Your task to perform on an android device: change your default location settings in chrome Image 0: 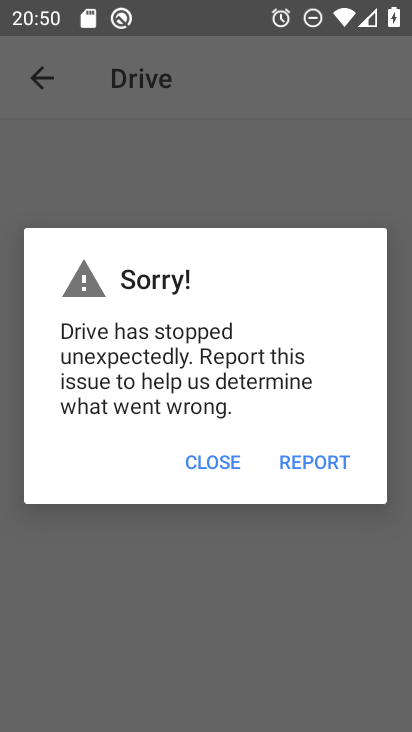
Step 0: press home button
Your task to perform on an android device: change your default location settings in chrome Image 1: 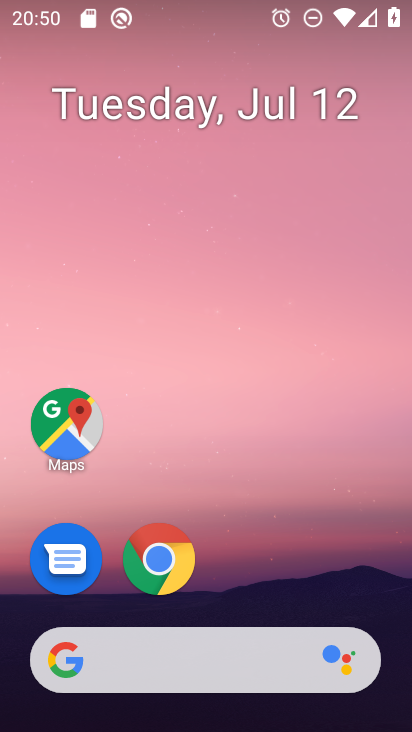
Step 1: drag from (352, 566) to (355, 154)
Your task to perform on an android device: change your default location settings in chrome Image 2: 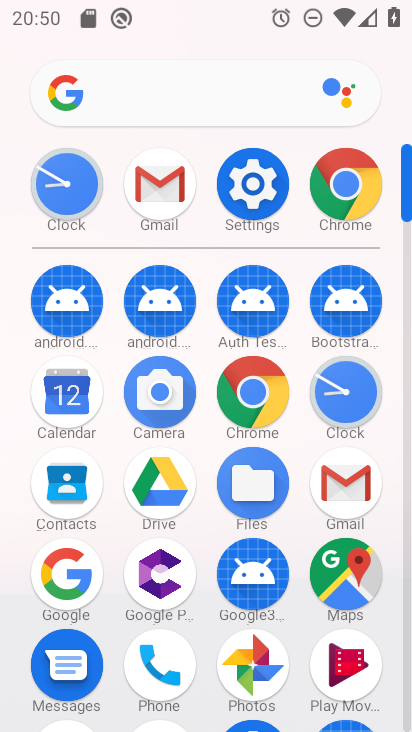
Step 2: click (254, 412)
Your task to perform on an android device: change your default location settings in chrome Image 3: 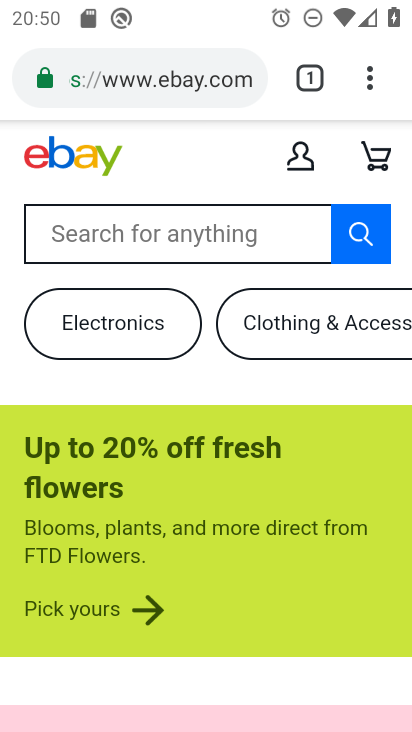
Step 3: click (369, 88)
Your task to perform on an android device: change your default location settings in chrome Image 4: 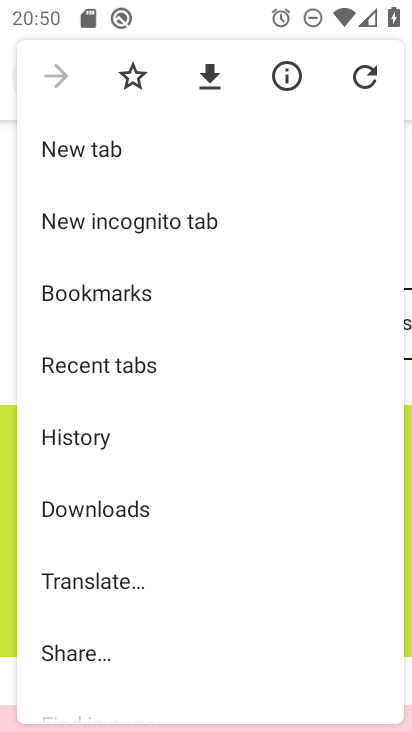
Step 4: drag from (323, 503) to (326, 332)
Your task to perform on an android device: change your default location settings in chrome Image 5: 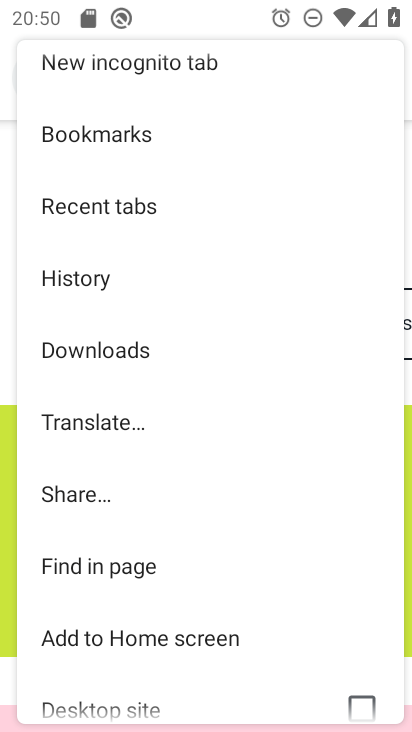
Step 5: drag from (317, 492) to (310, 334)
Your task to perform on an android device: change your default location settings in chrome Image 6: 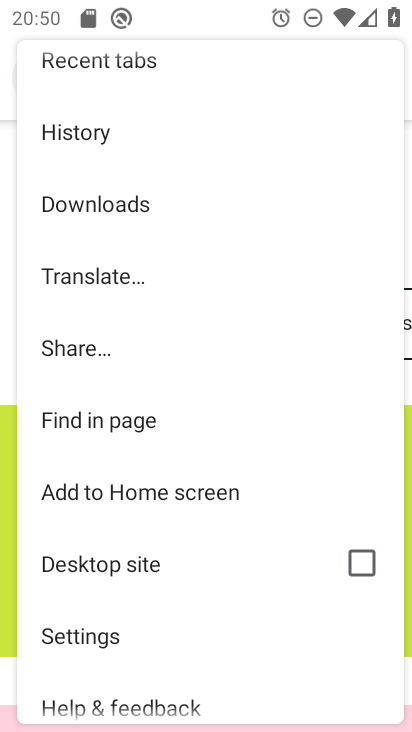
Step 6: drag from (288, 530) to (283, 397)
Your task to perform on an android device: change your default location settings in chrome Image 7: 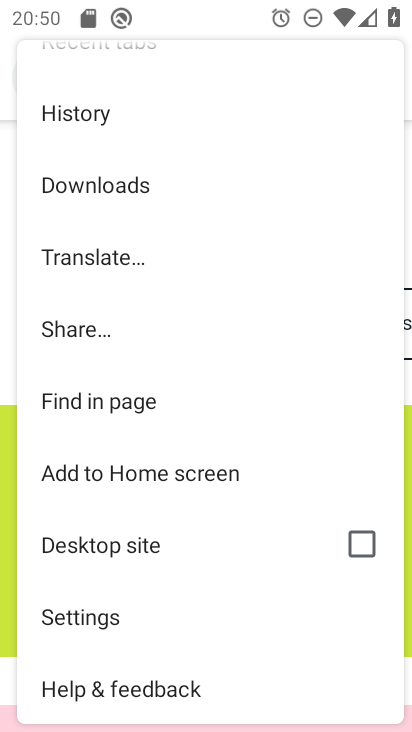
Step 7: click (122, 618)
Your task to perform on an android device: change your default location settings in chrome Image 8: 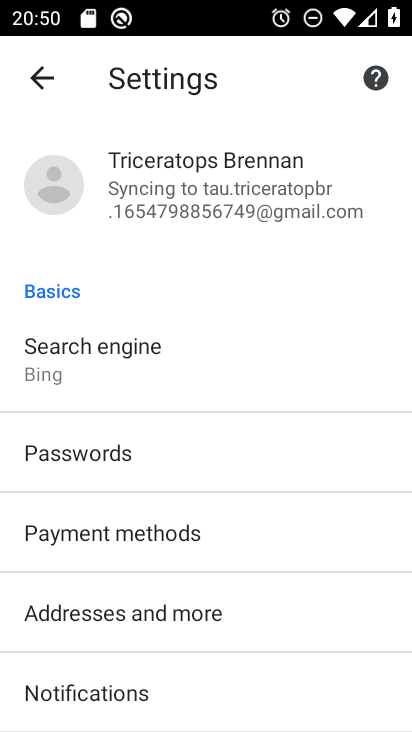
Step 8: drag from (315, 601) to (317, 388)
Your task to perform on an android device: change your default location settings in chrome Image 9: 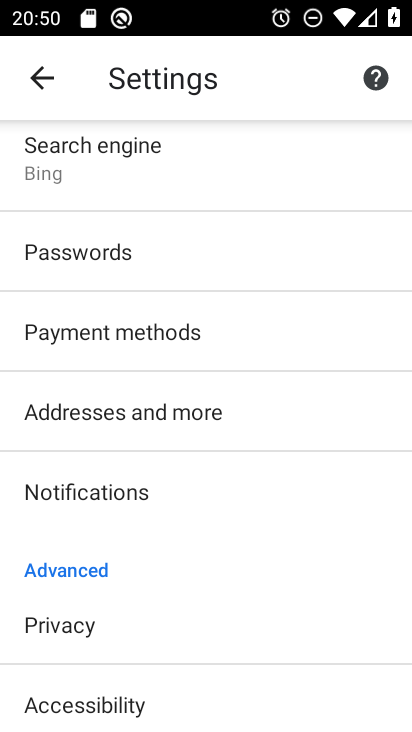
Step 9: drag from (306, 509) to (297, 327)
Your task to perform on an android device: change your default location settings in chrome Image 10: 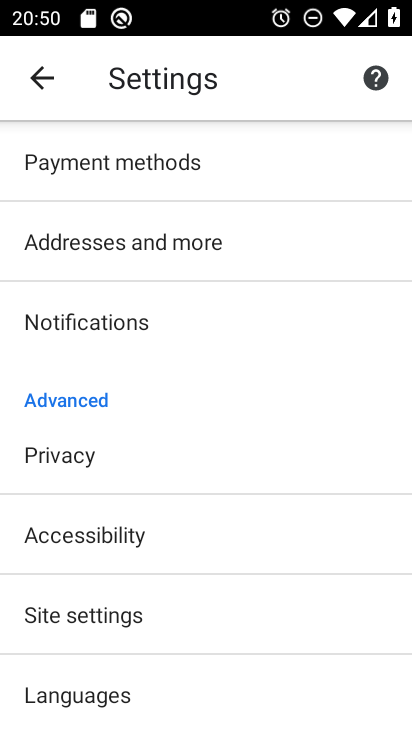
Step 10: drag from (324, 533) to (314, 356)
Your task to perform on an android device: change your default location settings in chrome Image 11: 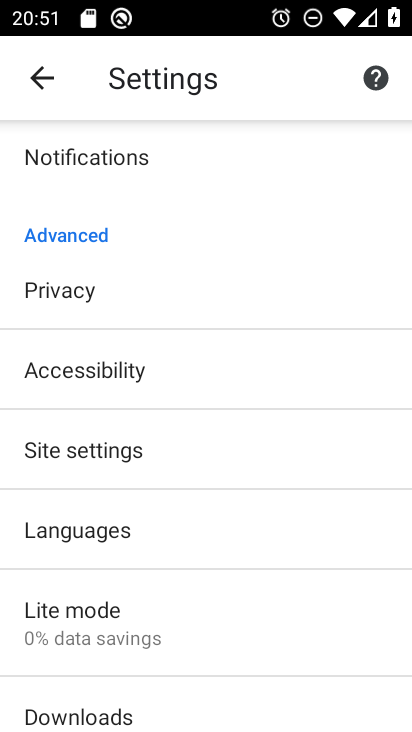
Step 11: click (301, 449)
Your task to perform on an android device: change your default location settings in chrome Image 12: 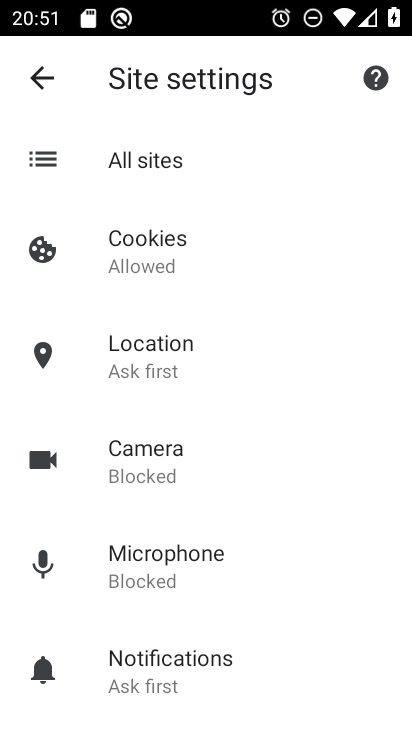
Step 12: drag from (310, 520) to (312, 352)
Your task to perform on an android device: change your default location settings in chrome Image 13: 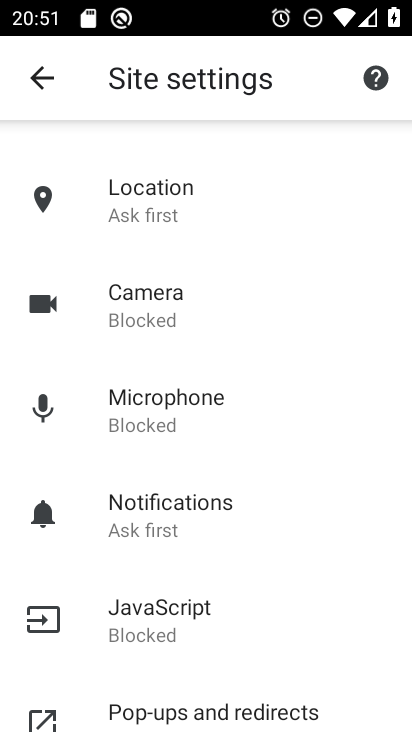
Step 13: click (243, 209)
Your task to perform on an android device: change your default location settings in chrome Image 14: 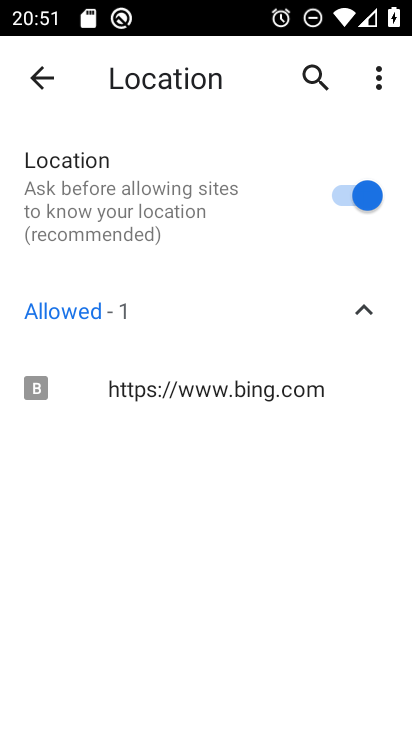
Step 14: click (379, 201)
Your task to perform on an android device: change your default location settings in chrome Image 15: 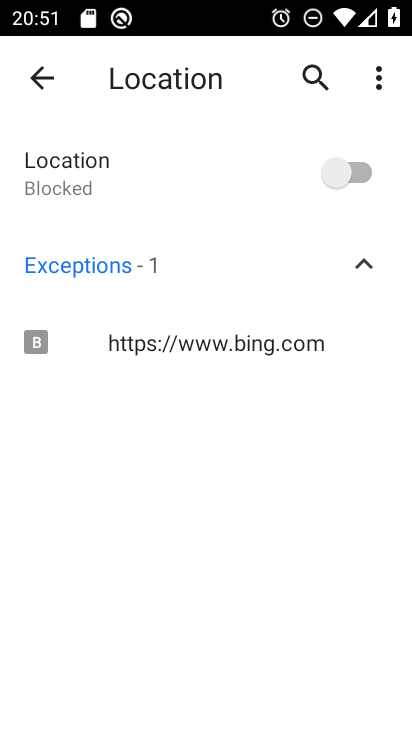
Step 15: task complete